Your task to perform on an android device: Go to location settings Image 0: 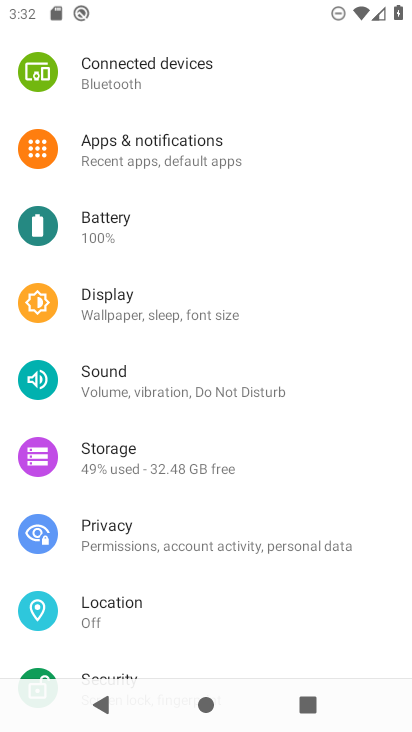
Step 0: click (171, 607)
Your task to perform on an android device: Go to location settings Image 1: 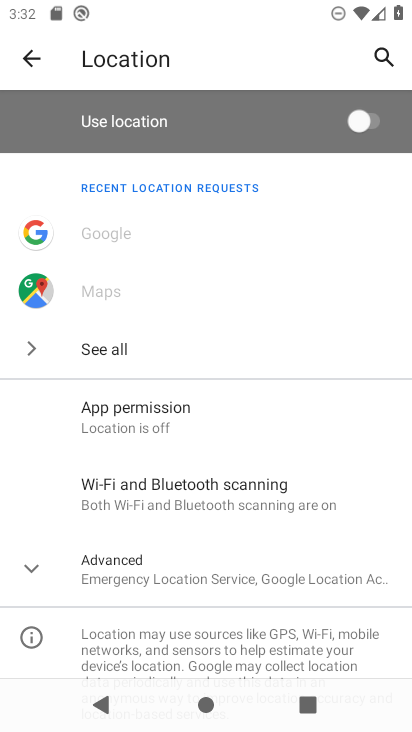
Step 1: task complete